Your task to perform on an android device: Search for logitech g910 on target, select the first entry, and add it to the cart. Image 0: 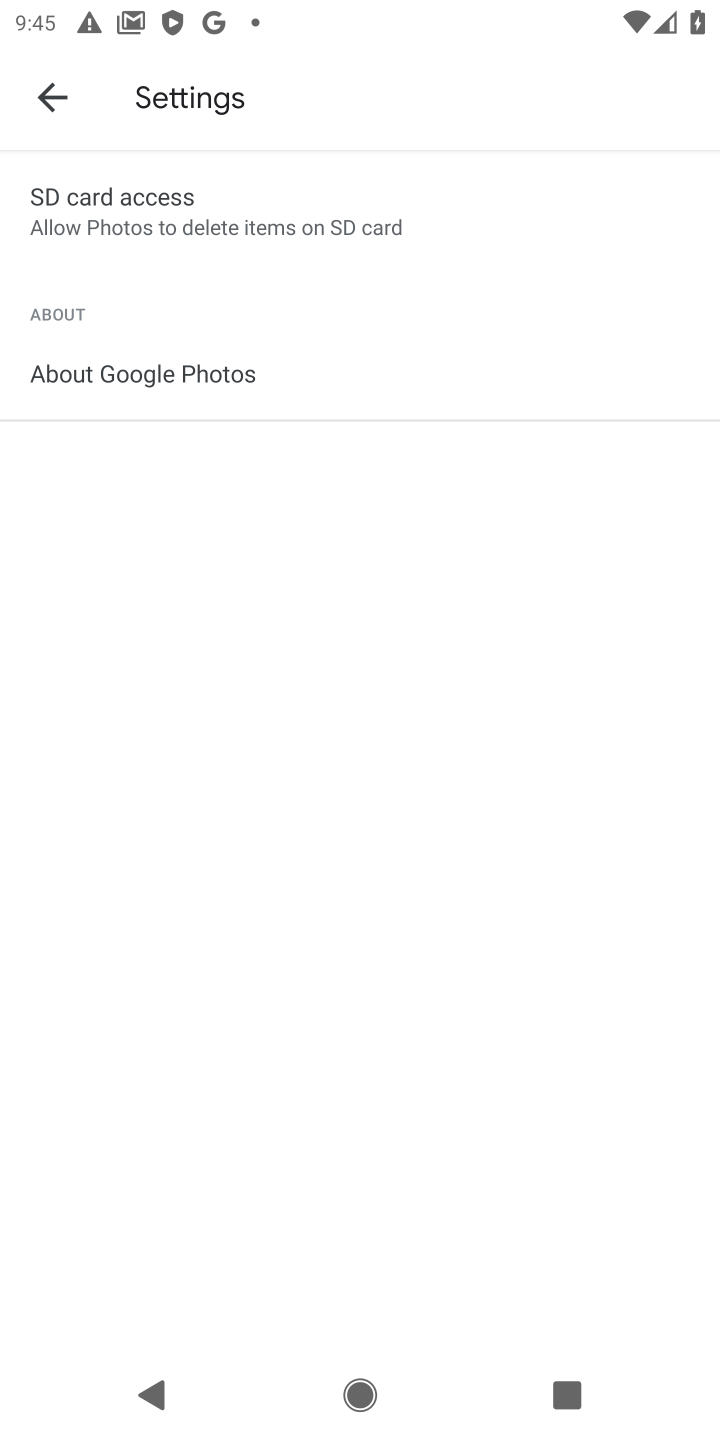
Step 0: press home button
Your task to perform on an android device: Search for logitech g910 on target, select the first entry, and add it to the cart. Image 1: 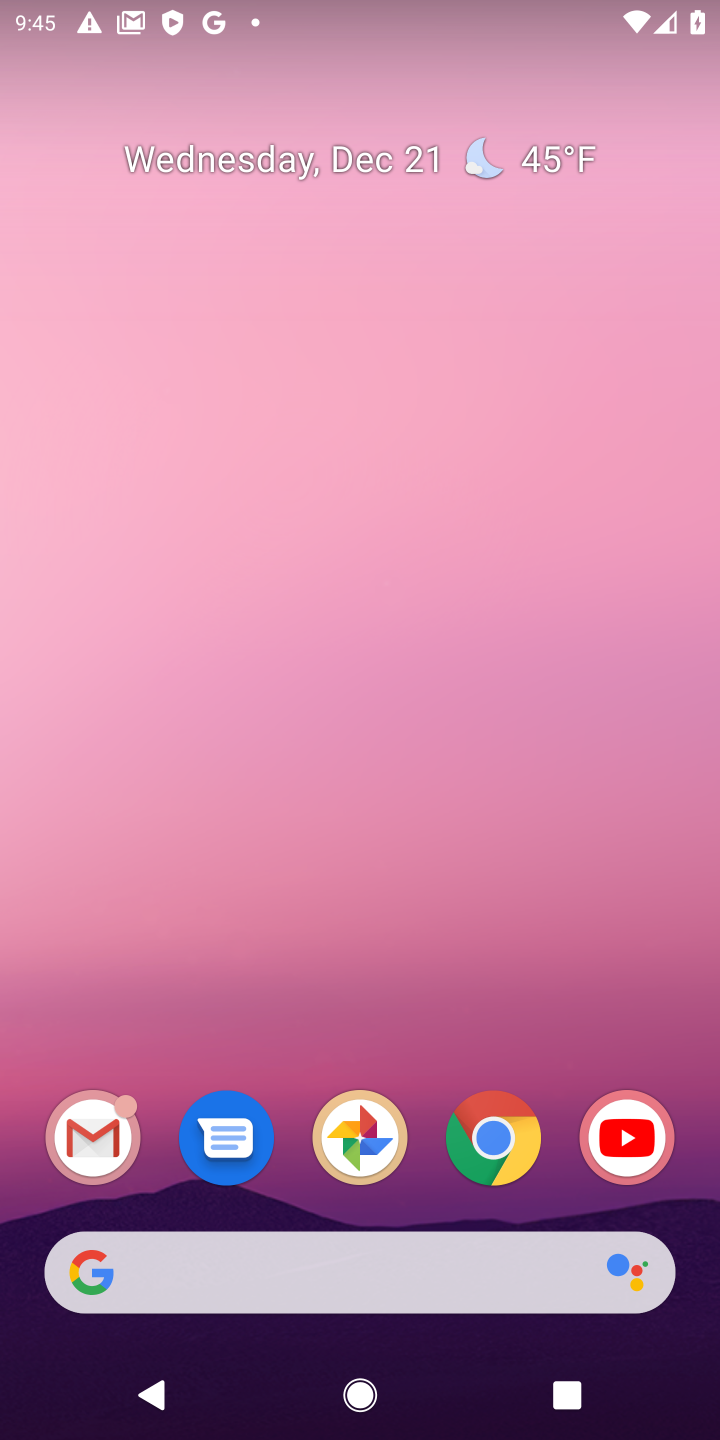
Step 1: click (491, 1149)
Your task to perform on an android device: Search for logitech g910 on target, select the first entry, and add it to the cart. Image 2: 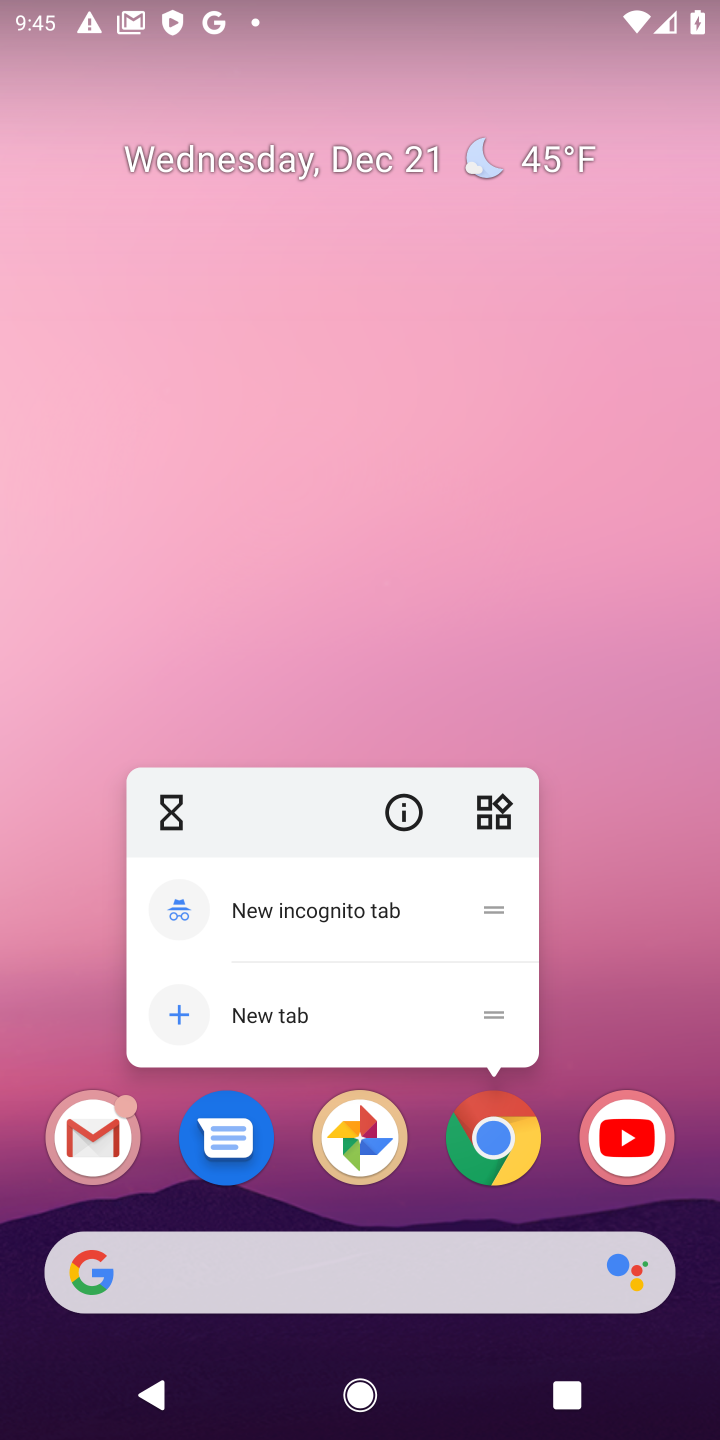
Step 2: click (491, 1149)
Your task to perform on an android device: Search for logitech g910 on target, select the first entry, and add it to the cart. Image 3: 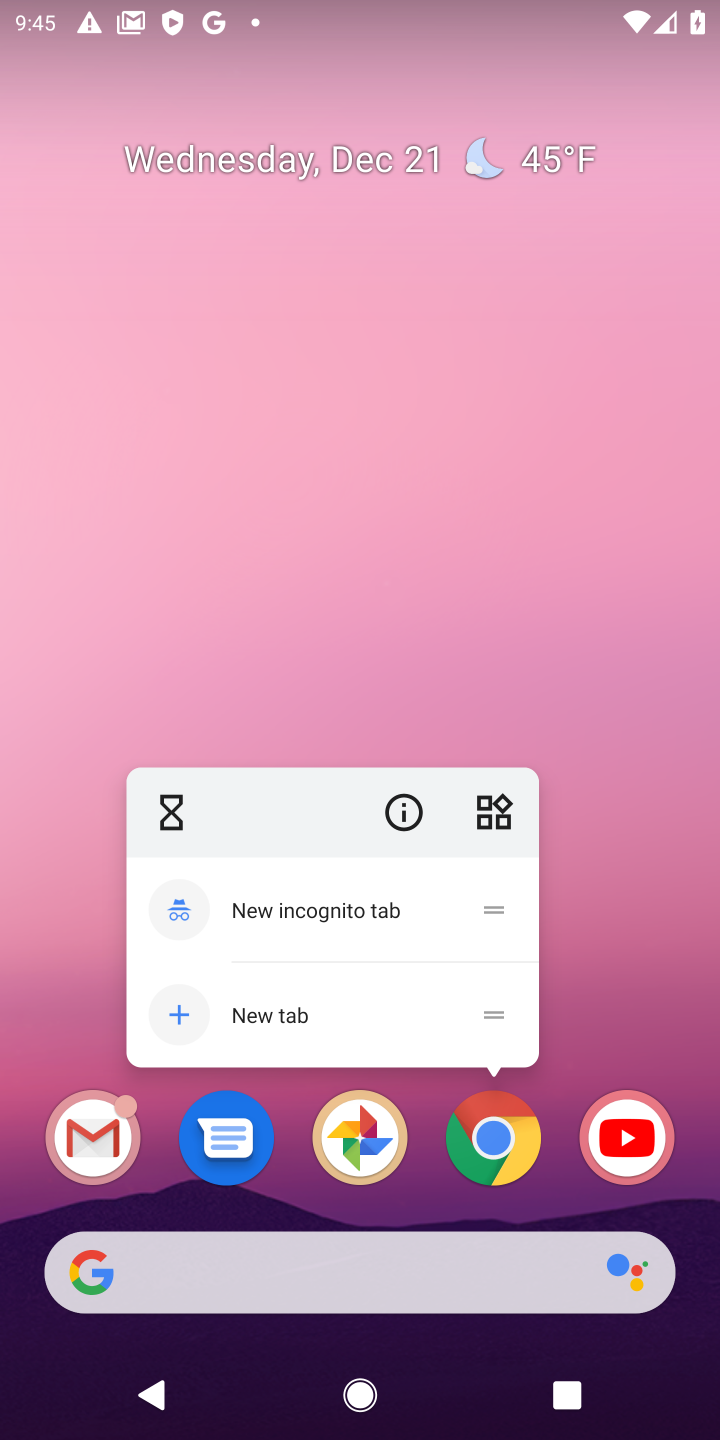
Step 3: click (491, 1147)
Your task to perform on an android device: Search for logitech g910 on target, select the first entry, and add it to the cart. Image 4: 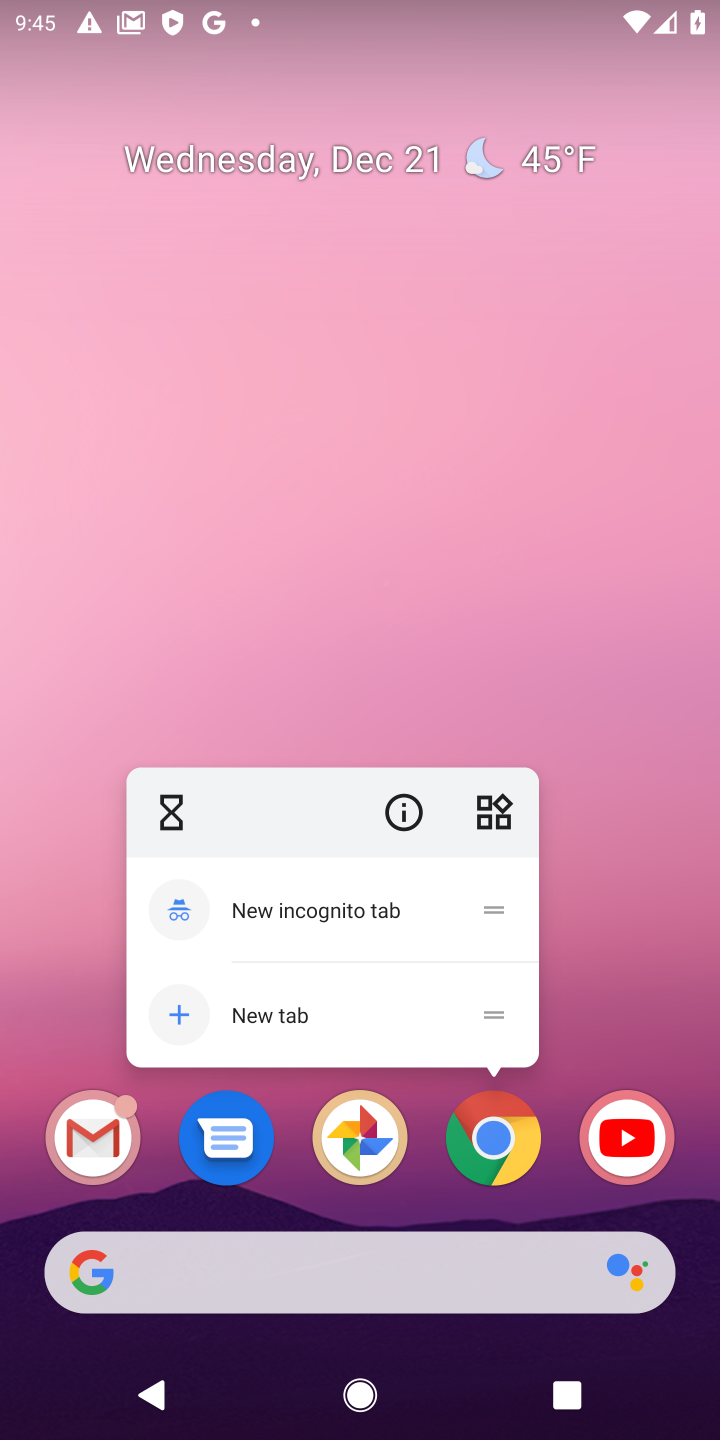
Step 4: click (491, 1147)
Your task to perform on an android device: Search for logitech g910 on target, select the first entry, and add it to the cart. Image 5: 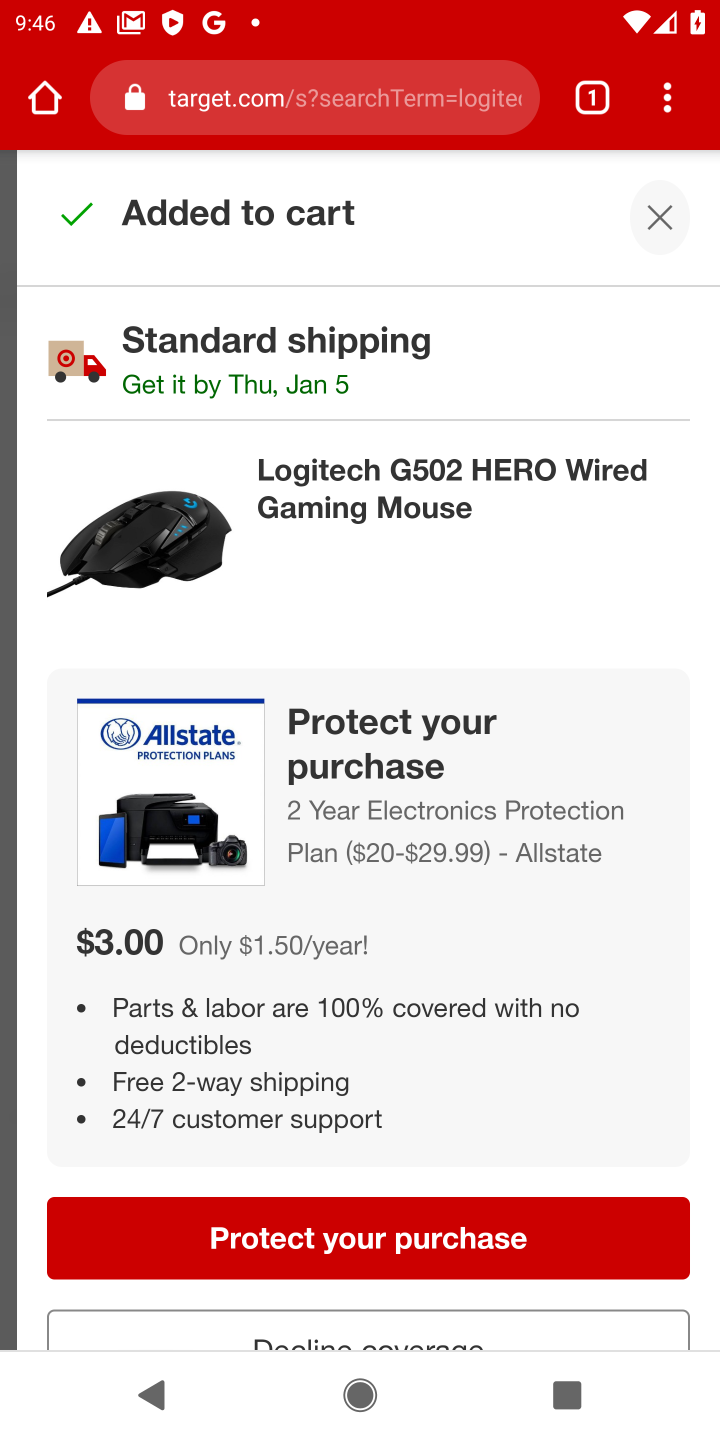
Step 5: click (666, 222)
Your task to perform on an android device: Search for logitech g910 on target, select the first entry, and add it to the cart. Image 6: 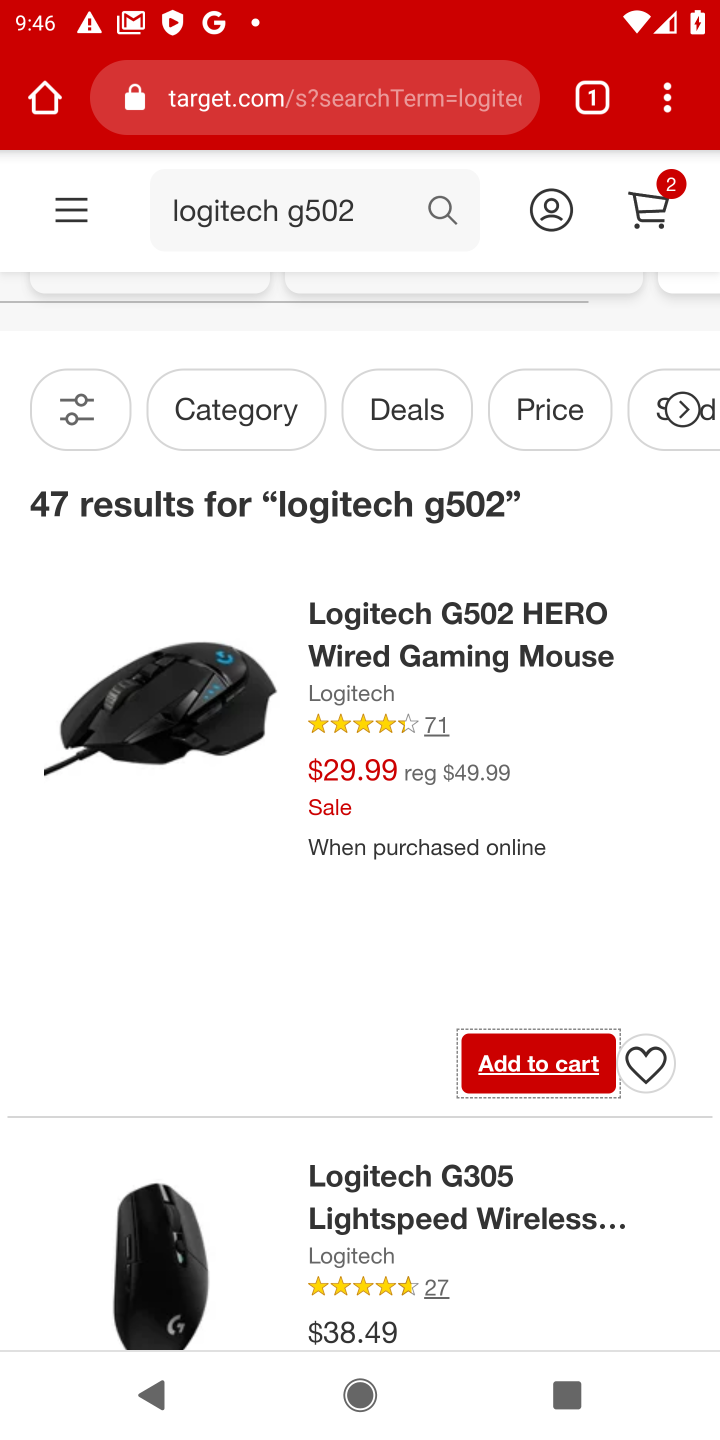
Step 6: click (431, 203)
Your task to perform on an android device: Search for logitech g910 on target, select the first entry, and add it to the cart. Image 7: 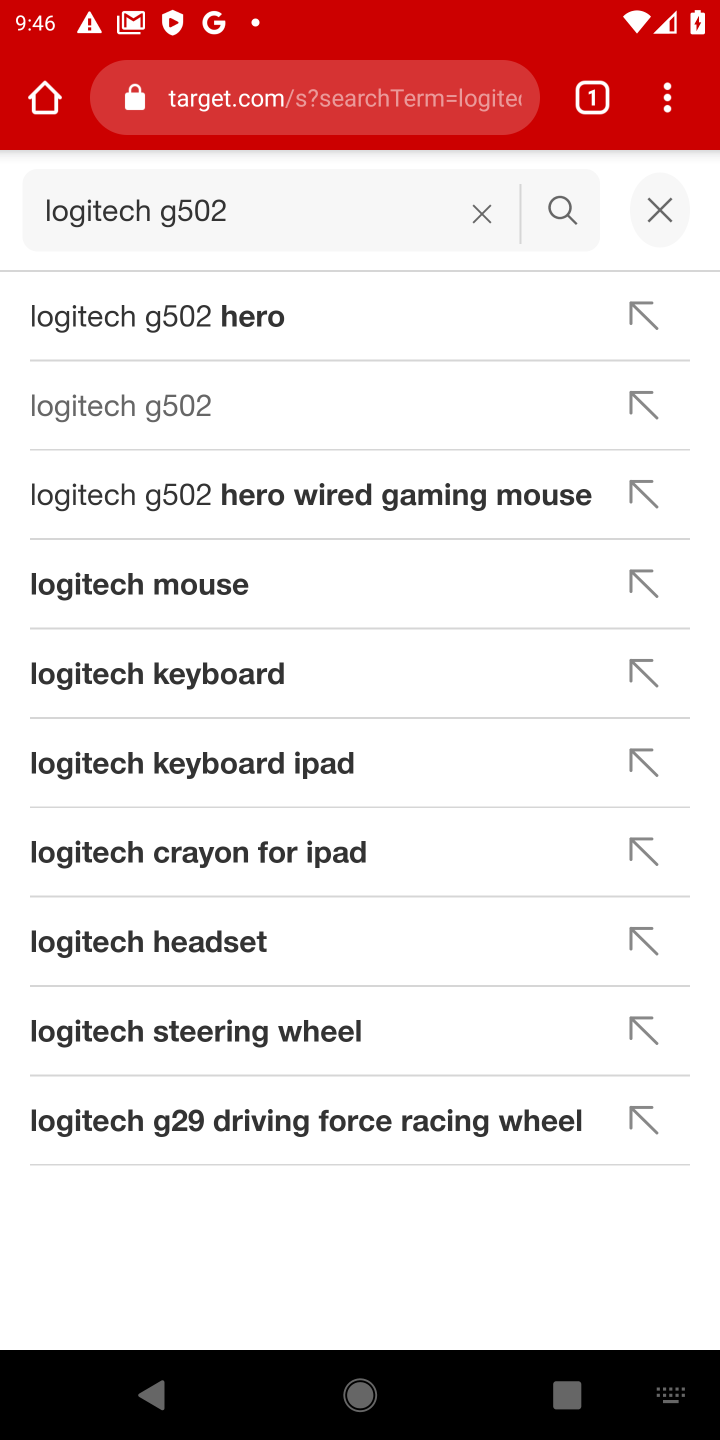
Step 7: click (479, 211)
Your task to perform on an android device: Search for logitech g910 on target, select the first entry, and add it to the cart. Image 8: 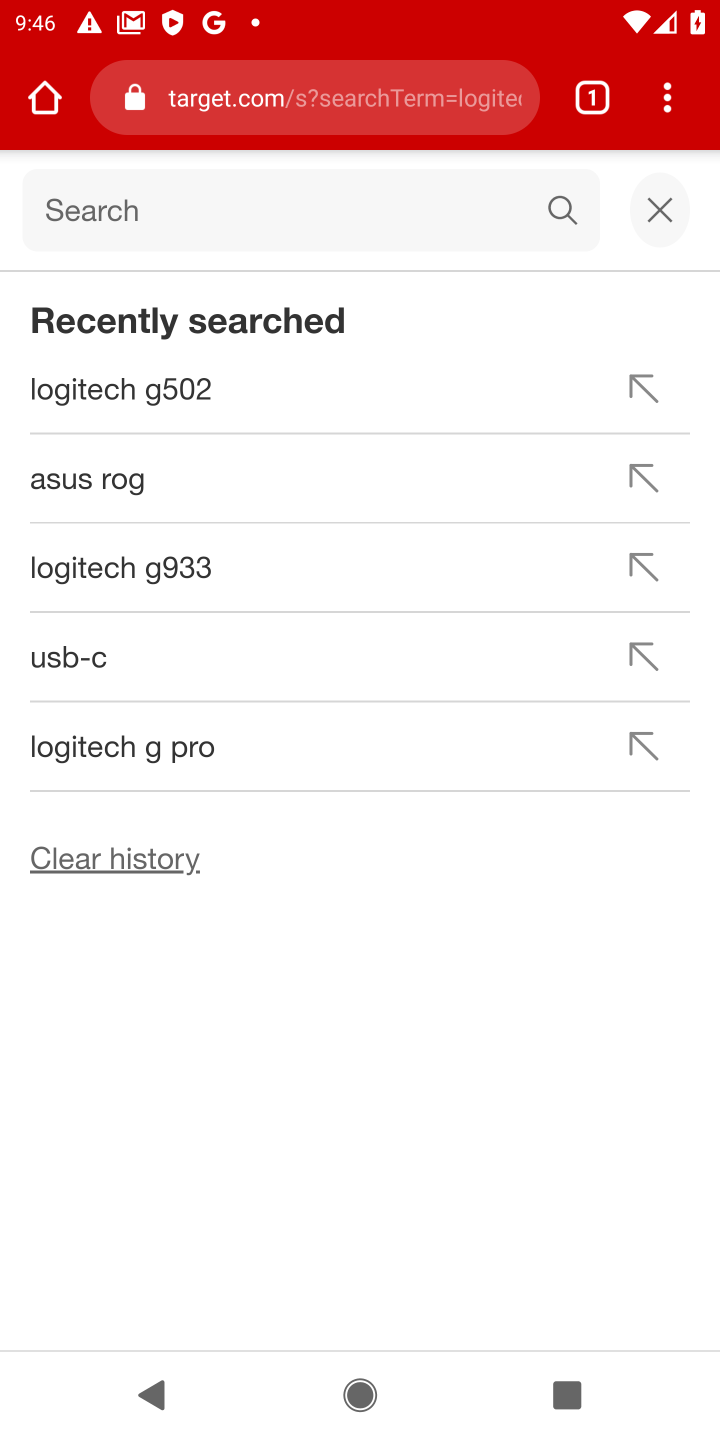
Step 8: click (110, 207)
Your task to perform on an android device: Search for logitech g910 on target, select the first entry, and add it to the cart. Image 9: 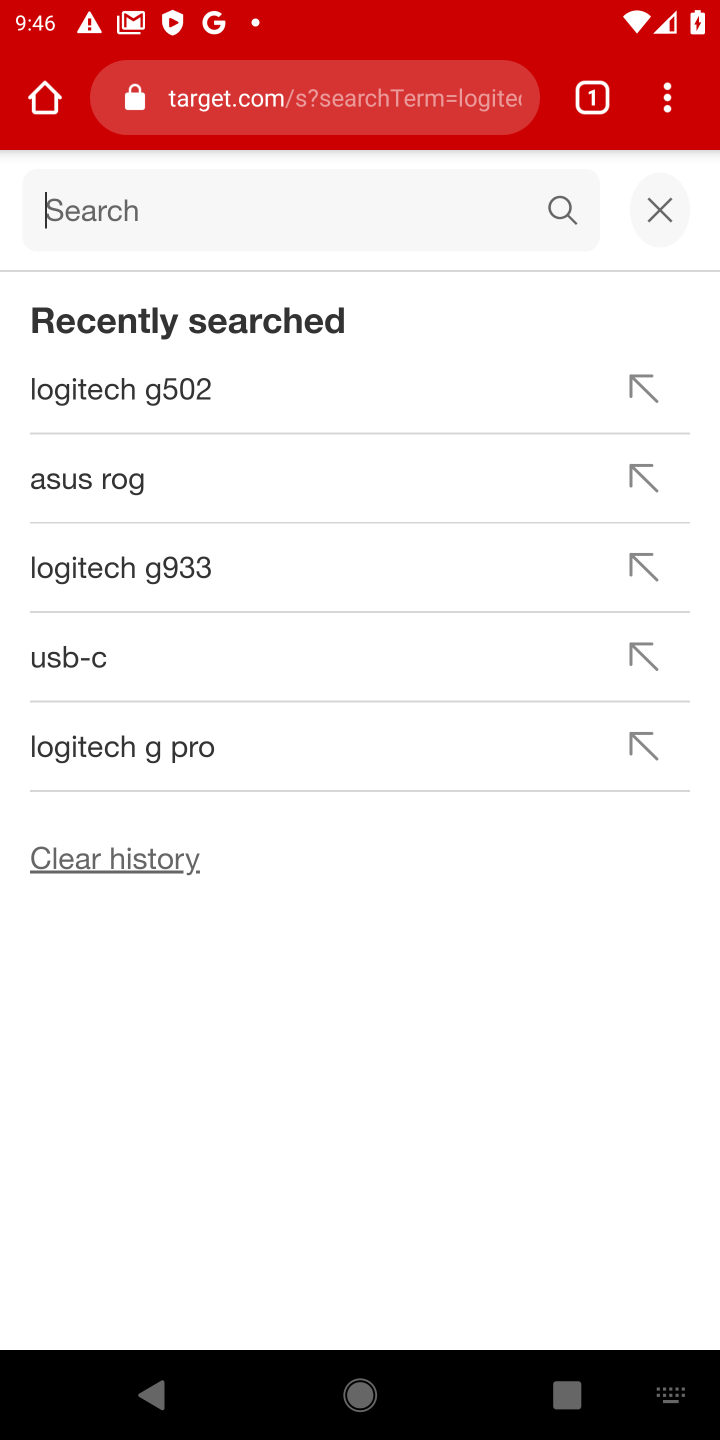
Step 9: type " logitech g910"
Your task to perform on an android device: Search for logitech g910 on target, select the first entry, and add it to the cart. Image 10: 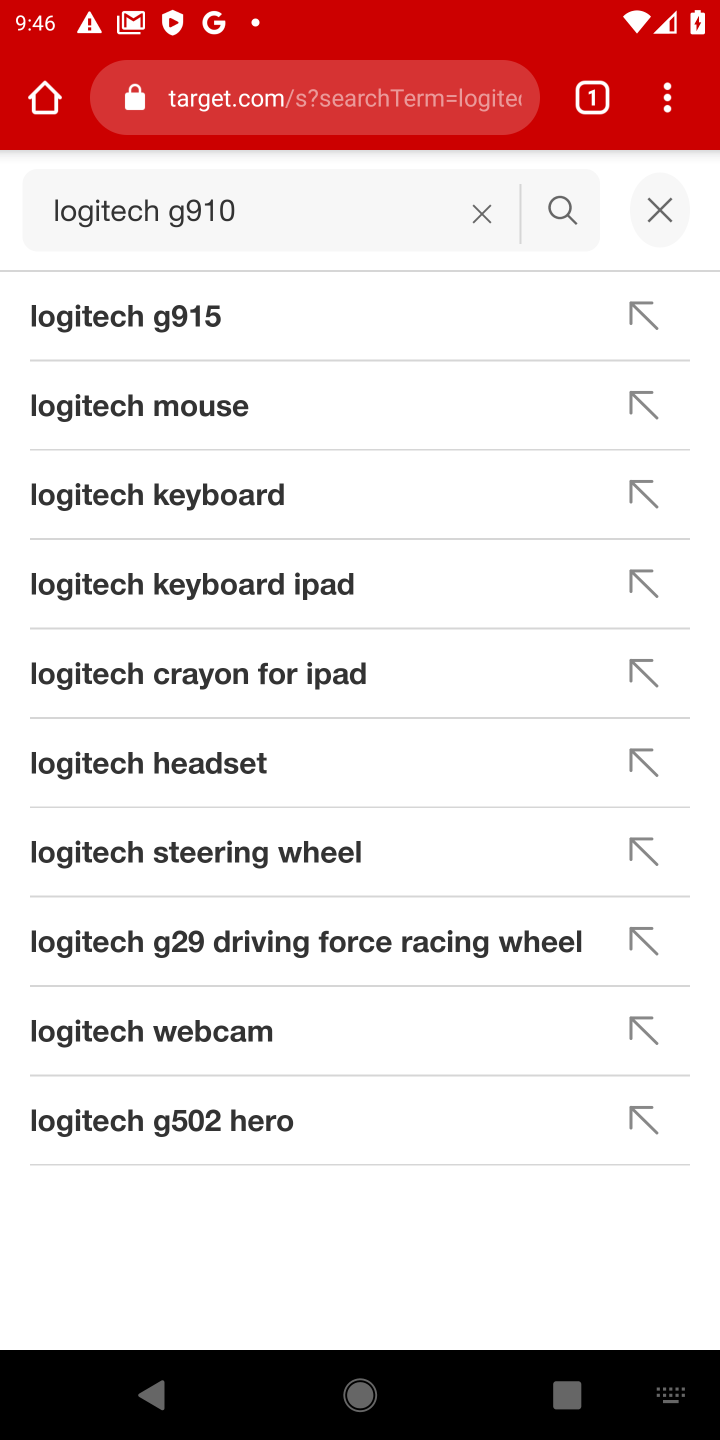
Step 10: click (556, 212)
Your task to perform on an android device: Search for logitech g910 on target, select the first entry, and add it to the cart. Image 11: 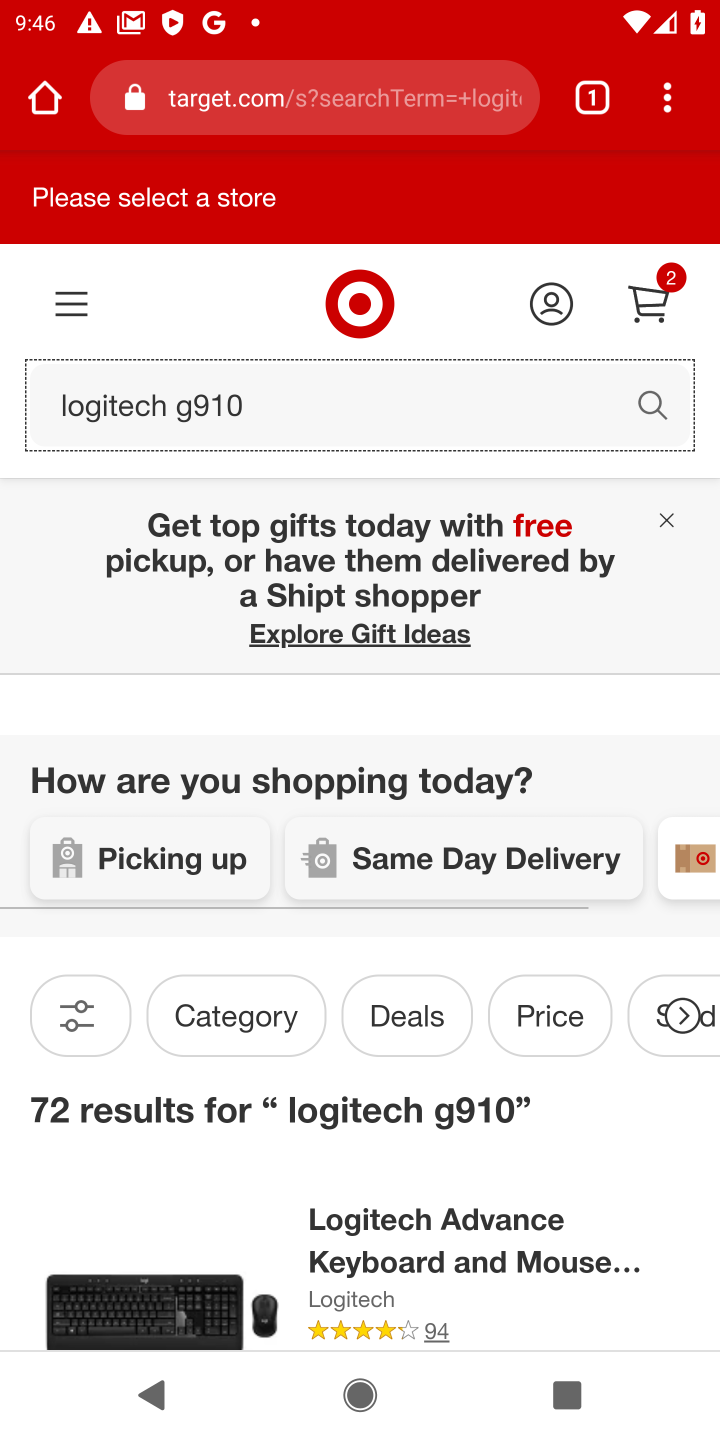
Step 11: task complete